Your task to perform on an android device: Set the phone to "Do not disturb". Image 0: 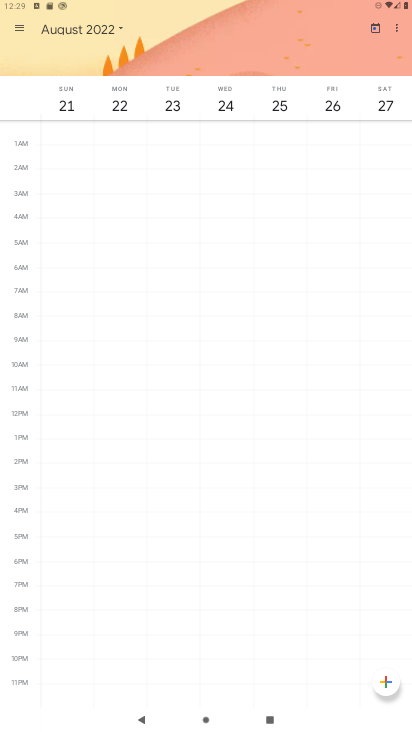
Step 0: press home button
Your task to perform on an android device: Set the phone to "Do not disturb". Image 1: 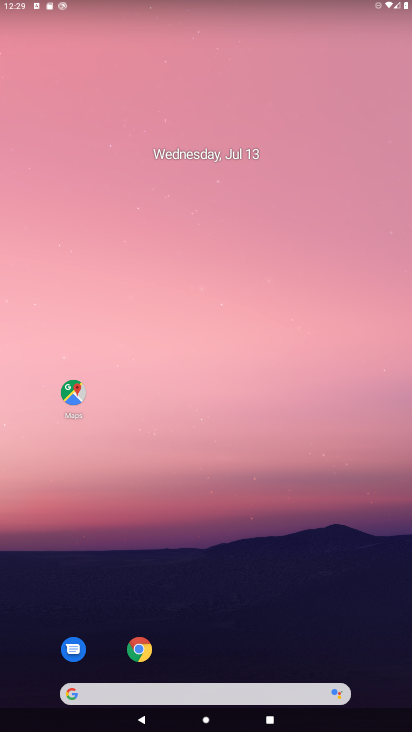
Step 1: drag from (377, 657) to (318, 53)
Your task to perform on an android device: Set the phone to "Do not disturb". Image 2: 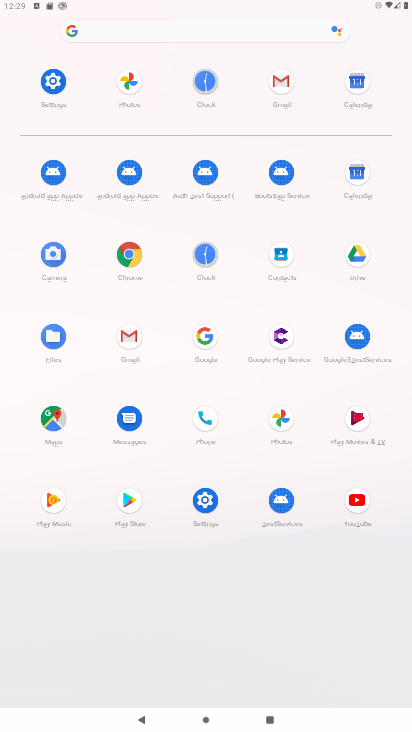
Step 2: click (207, 502)
Your task to perform on an android device: Set the phone to "Do not disturb". Image 3: 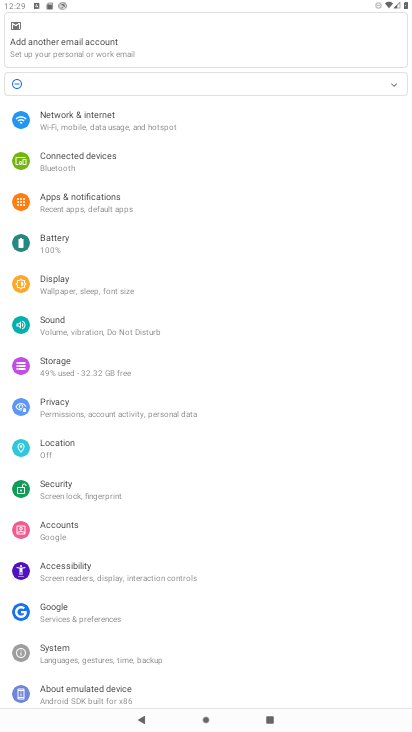
Step 3: click (58, 332)
Your task to perform on an android device: Set the phone to "Do not disturb". Image 4: 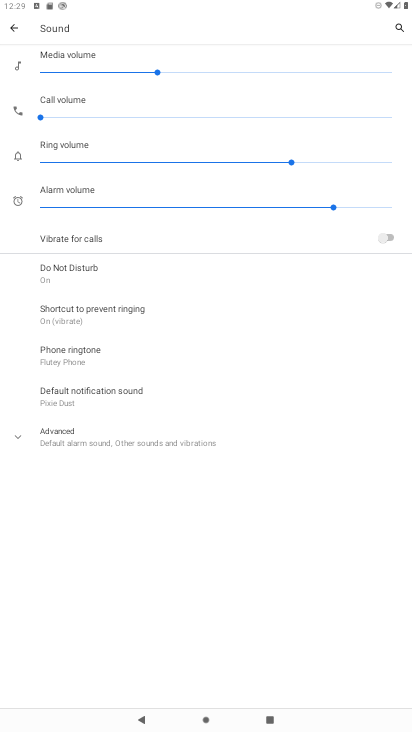
Step 4: click (69, 268)
Your task to perform on an android device: Set the phone to "Do not disturb". Image 5: 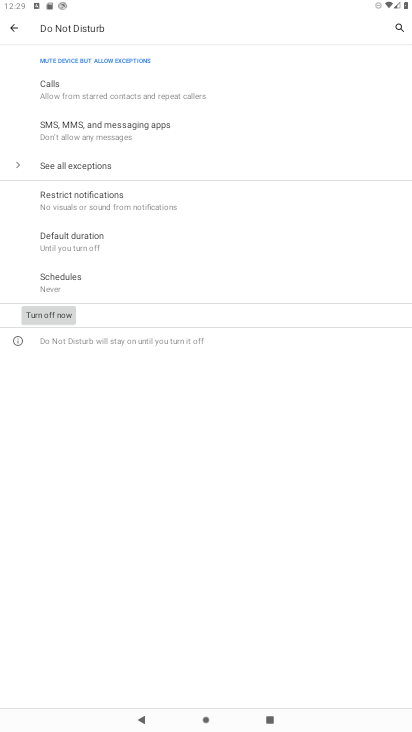
Step 5: task complete